Your task to perform on an android device: Go to calendar. Show me events next week Image 0: 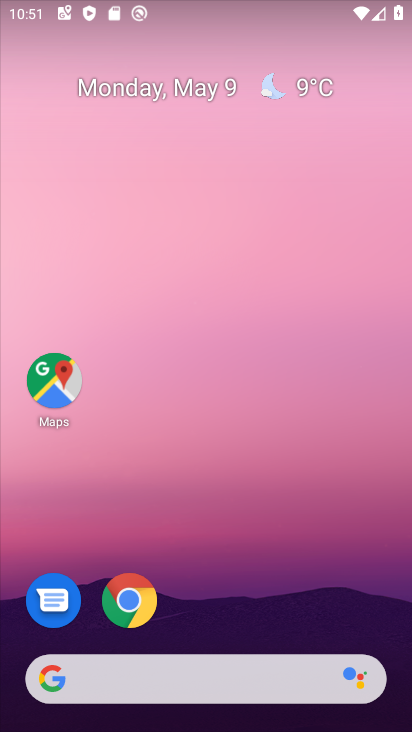
Step 0: press home button
Your task to perform on an android device: Go to calendar. Show me events next week Image 1: 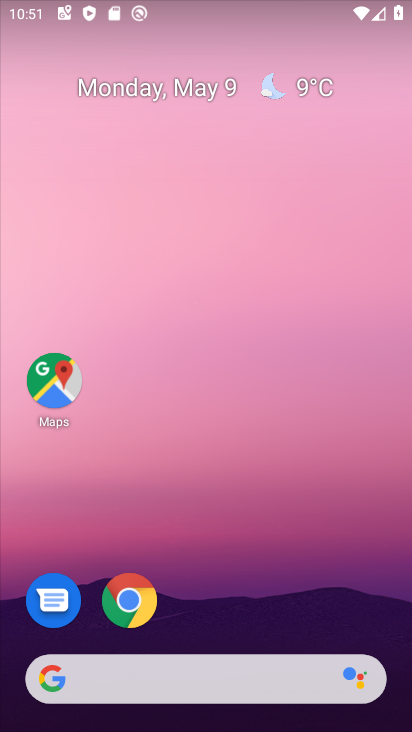
Step 1: drag from (306, 583) to (329, 146)
Your task to perform on an android device: Go to calendar. Show me events next week Image 2: 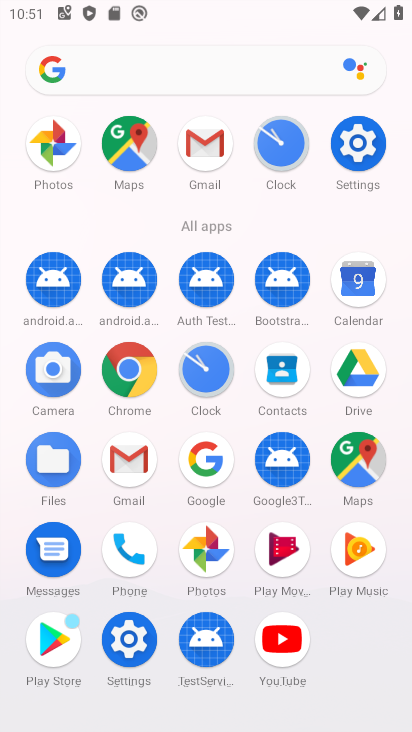
Step 2: click (352, 302)
Your task to perform on an android device: Go to calendar. Show me events next week Image 3: 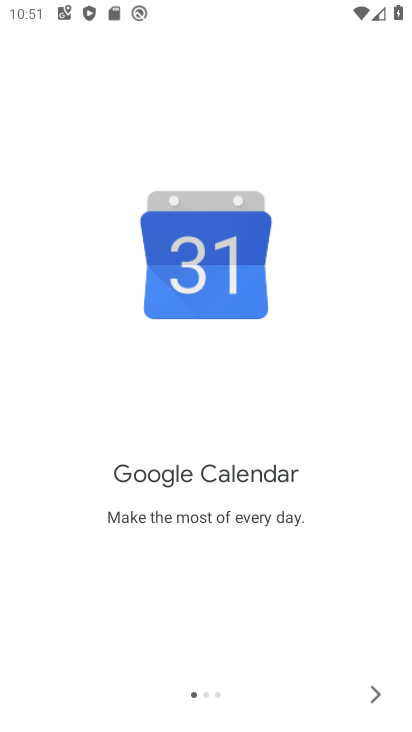
Step 3: click (368, 701)
Your task to perform on an android device: Go to calendar. Show me events next week Image 4: 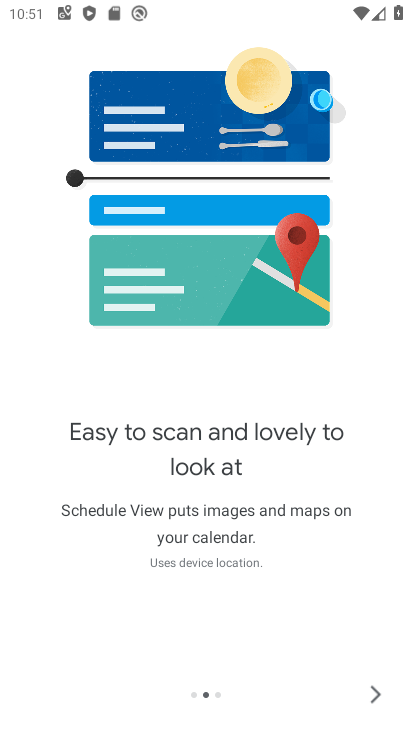
Step 4: click (376, 698)
Your task to perform on an android device: Go to calendar. Show me events next week Image 5: 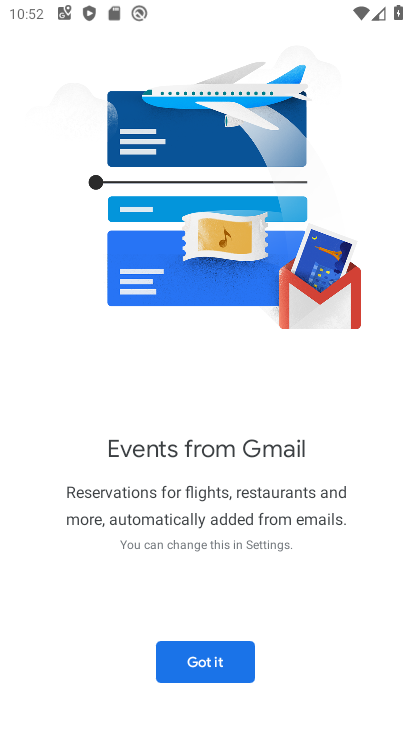
Step 5: click (223, 661)
Your task to perform on an android device: Go to calendar. Show me events next week Image 6: 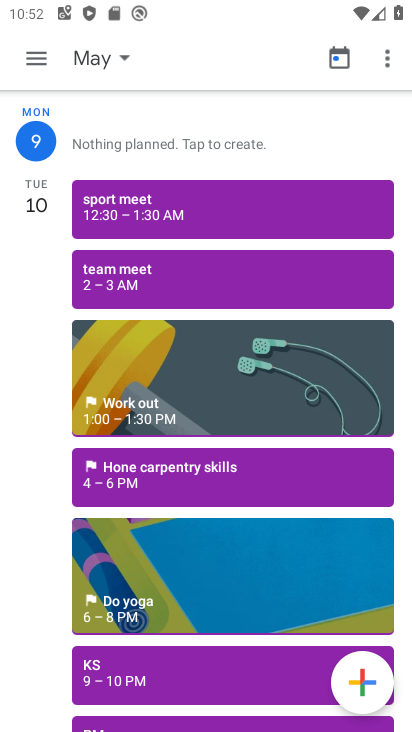
Step 6: click (99, 63)
Your task to perform on an android device: Go to calendar. Show me events next week Image 7: 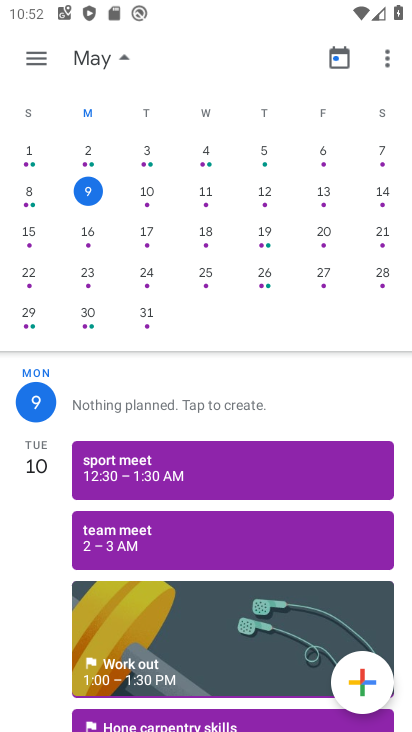
Step 7: click (21, 233)
Your task to perform on an android device: Go to calendar. Show me events next week Image 8: 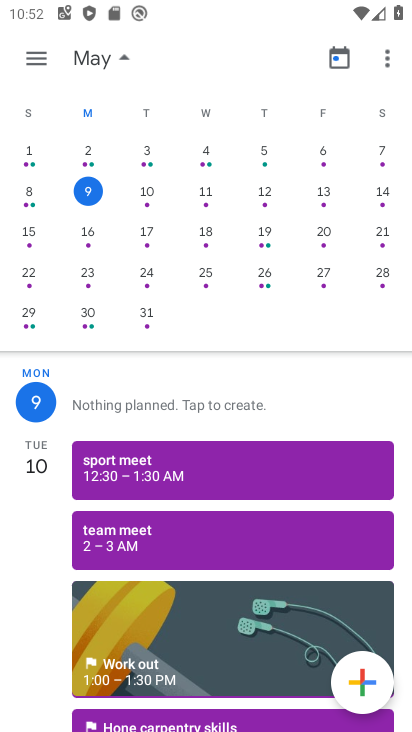
Step 8: click (30, 230)
Your task to perform on an android device: Go to calendar. Show me events next week Image 9: 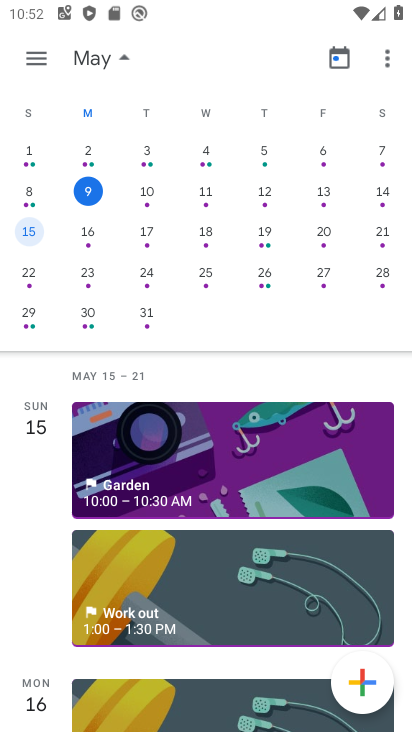
Step 9: task complete